Your task to perform on an android device: Go to notification settings Image 0: 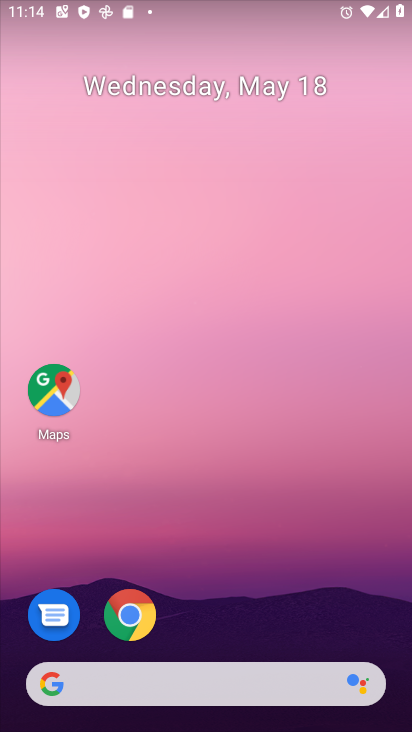
Step 0: drag from (149, 648) to (145, 259)
Your task to perform on an android device: Go to notification settings Image 1: 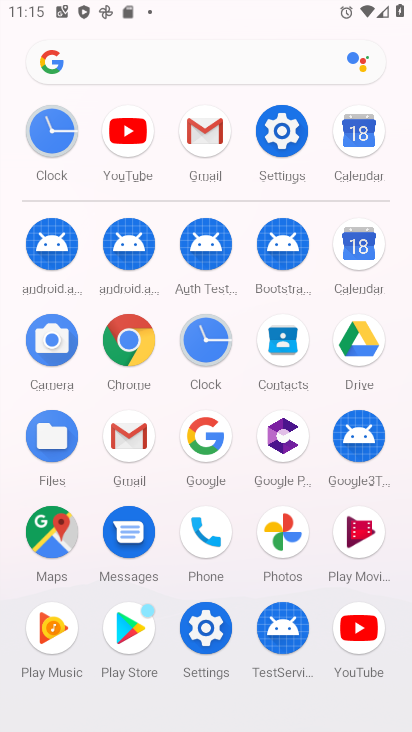
Step 1: click (291, 129)
Your task to perform on an android device: Go to notification settings Image 2: 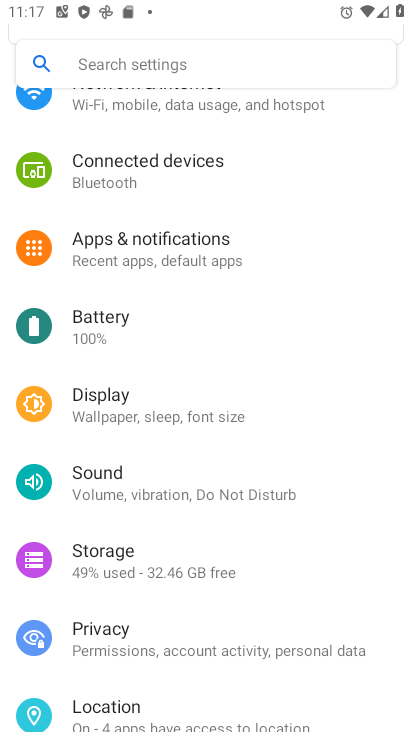
Step 2: click (141, 247)
Your task to perform on an android device: Go to notification settings Image 3: 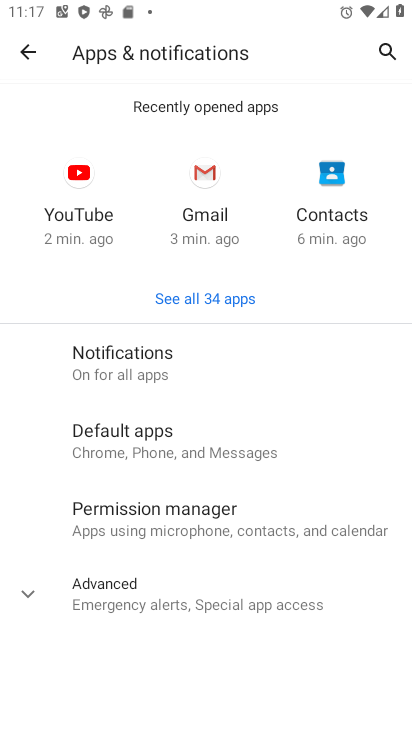
Step 3: click (185, 596)
Your task to perform on an android device: Go to notification settings Image 4: 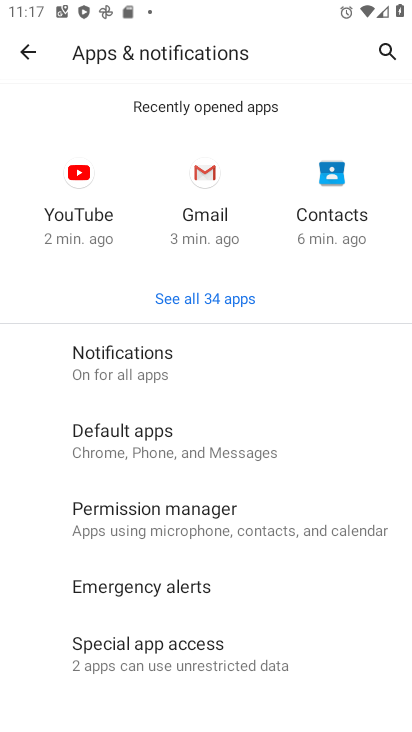
Step 4: task complete